Your task to perform on an android device: toggle airplane mode Image 0: 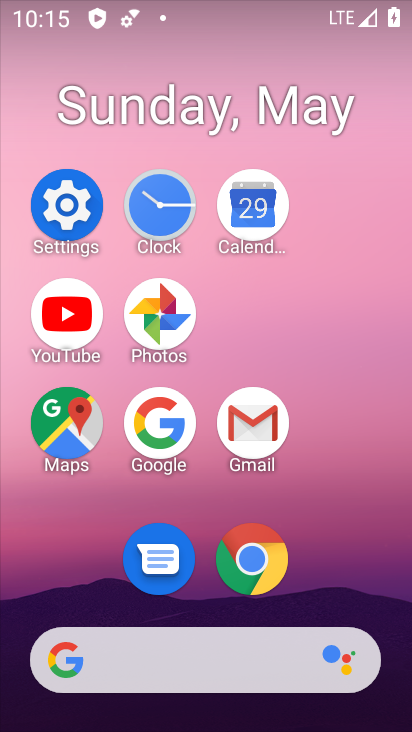
Step 0: click (81, 223)
Your task to perform on an android device: toggle airplane mode Image 1: 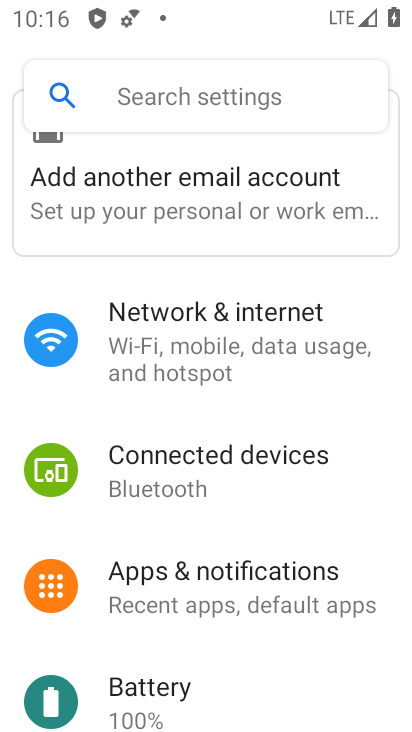
Step 1: click (310, 354)
Your task to perform on an android device: toggle airplane mode Image 2: 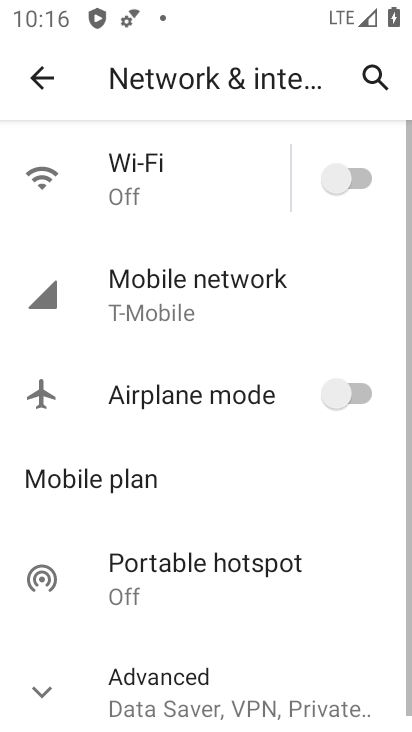
Step 2: click (343, 390)
Your task to perform on an android device: toggle airplane mode Image 3: 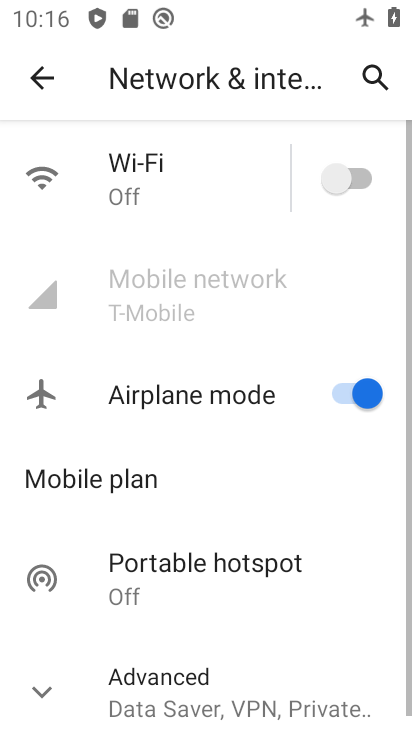
Step 3: task complete